Your task to perform on an android device: Open the phone app and click the voicemail tab. Image 0: 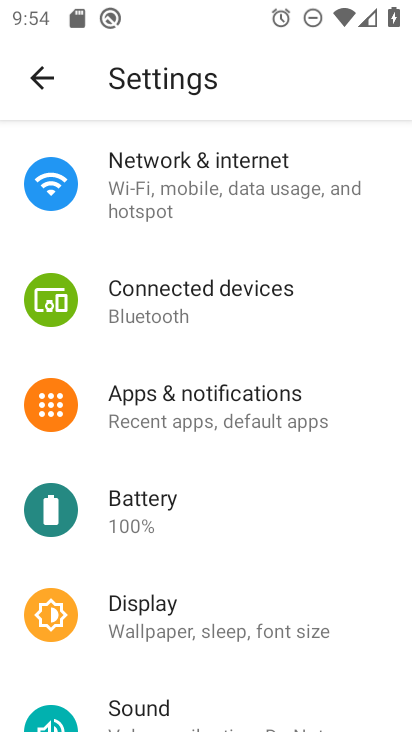
Step 0: press home button
Your task to perform on an android device: Open the phone app and click the voicemail tab. Image 1: 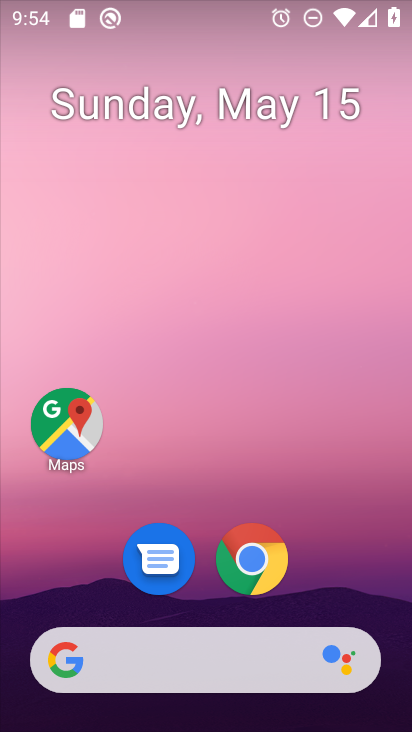
Step 1: drag from (348, 594) to (315, 72)
Your task to perform on an android device: Open the phone app and click the voicemail tab. Image 2: 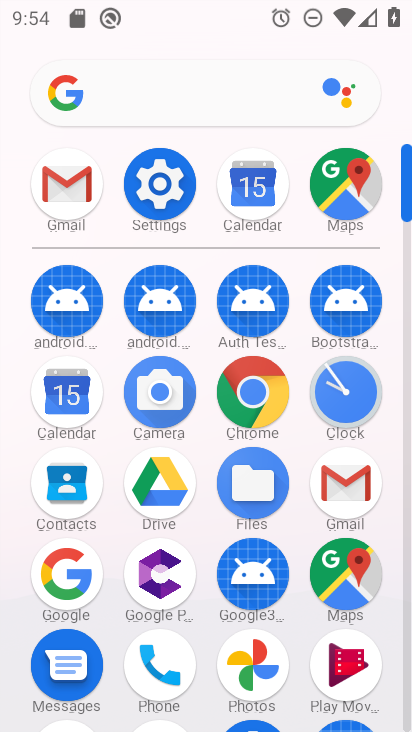
Step 2: click (408, 729)
Your task to perform on an android device: Open the phone app and click the voicemail tab. Image 3: 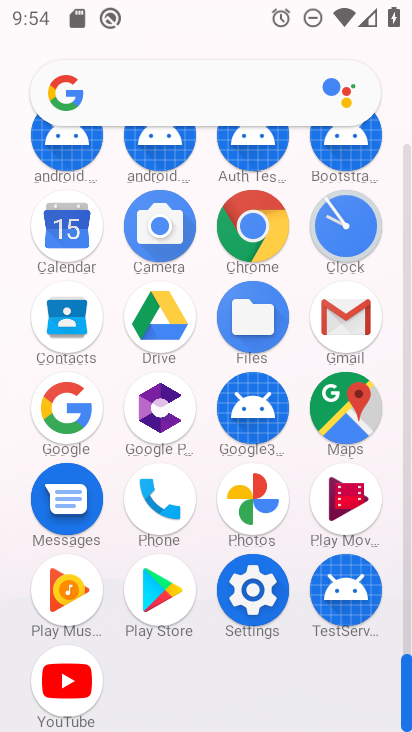
Step 3: click (174, 494)
Your task to perform on an android device: Open the phone app and click the voicemail tab. Image 4: 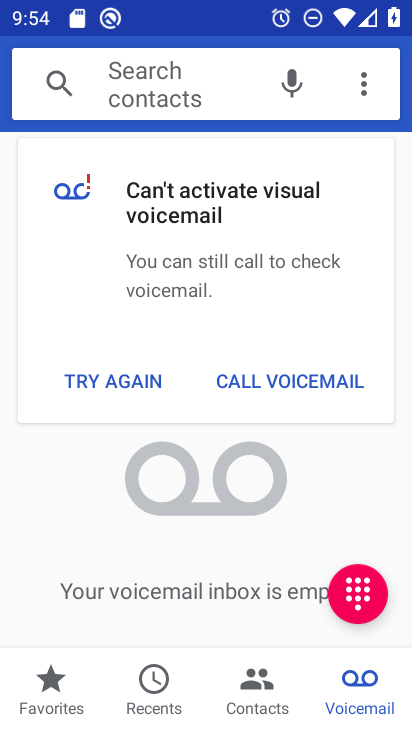
Step 4: click (375, 682)
Your task to perform on an android device: Open the phone app and click the voicemail tab. Image 5: 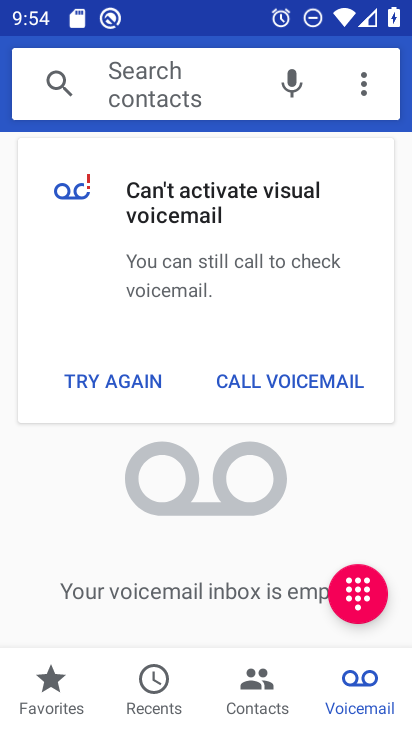
Step 5: task complete